Your task to perform on an android device: Open calendar and show me the second week of next month Image 0: 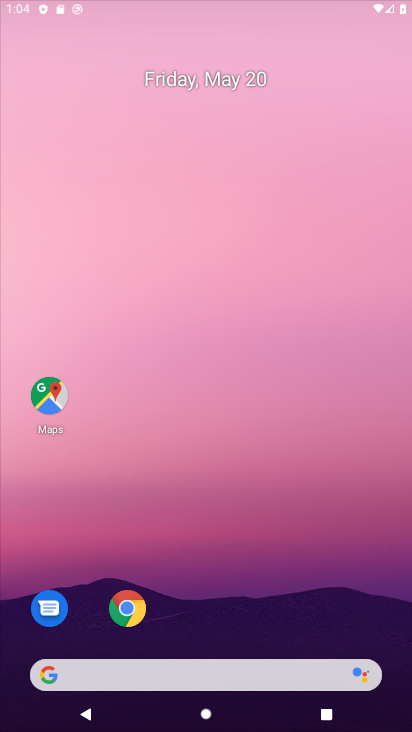
Step 0: drag from (254, 611) to (307, 95)
Your task to perform on an android device: Open calendar and show me the second week of next month Image 1: 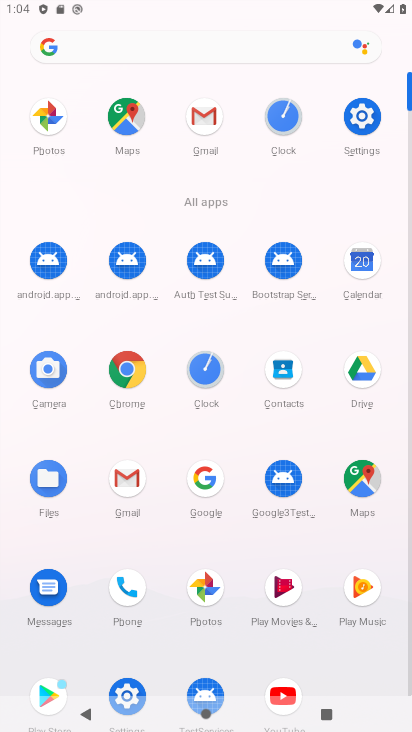
Step 1: click (361, 271)
Your task to perform on an android device: Open calendar and show me the second week of next month Image 2: 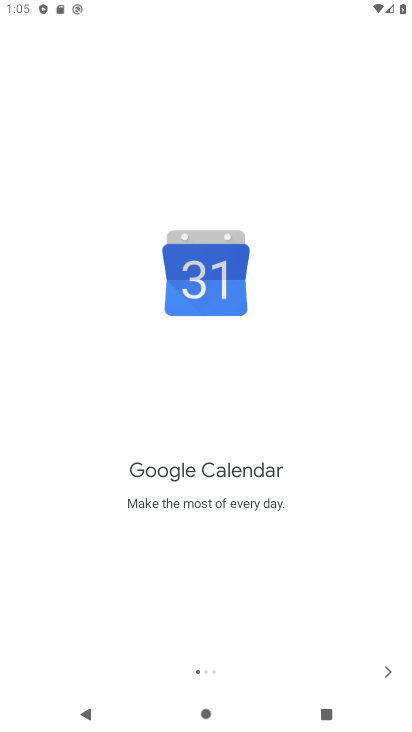
Step 2: click (383, 677)
Your task to perform on an android device: Open calendar and show me the second week of next month Image 3: 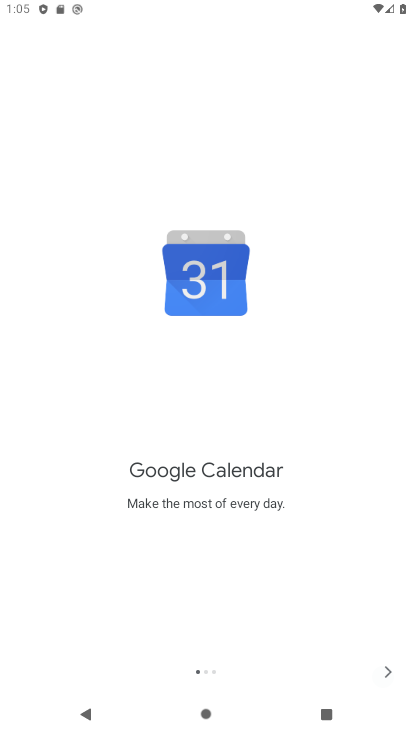
Step 3: click (383, 677)
Your task to perform on an android device: Open calendar and show me the second week of next month Image 4: 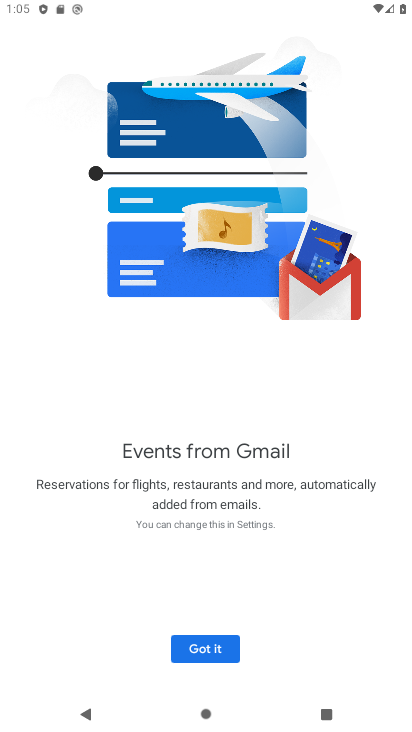
Step 4: click (383, 677)
Your task to perform on an android device: Open calendar and show me the second week of next month Image 5: 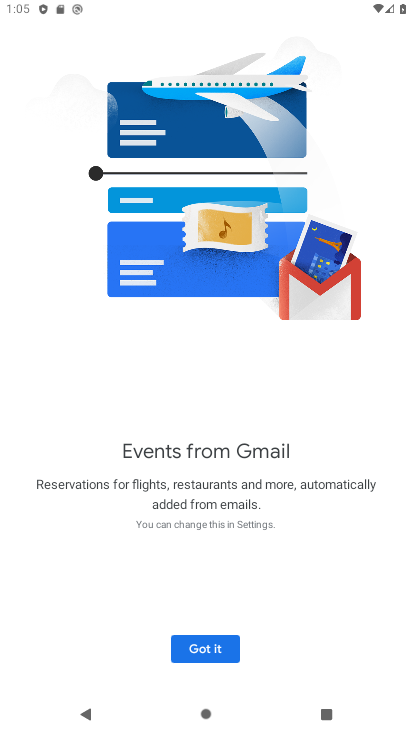
Step 5: click (211, 645)
Your task to perform on an android device: Open calendar and show me the second week of next month Image 6: 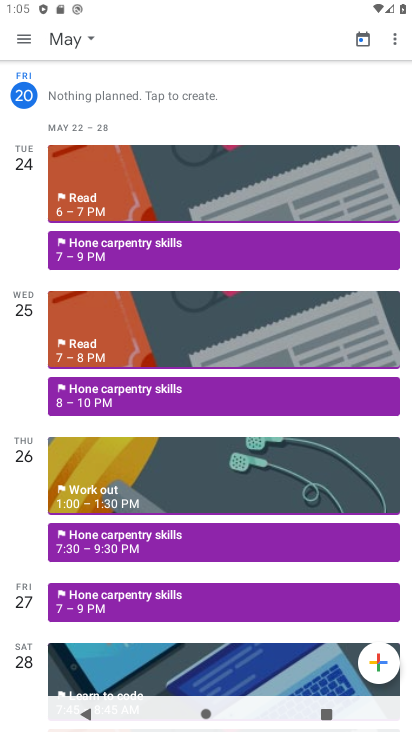
Step 6: click (85, 36)
Your task to perform on an android device: Open calendar and show me the second week of next month Image 7: 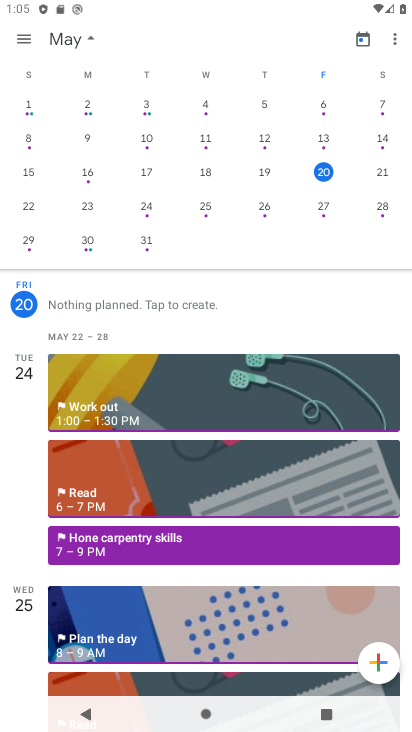
Step 7: drag from (373, 171) to (6, 146)
Your task to perform on an android device: Open calendar and show me the second week of next month Image 8: 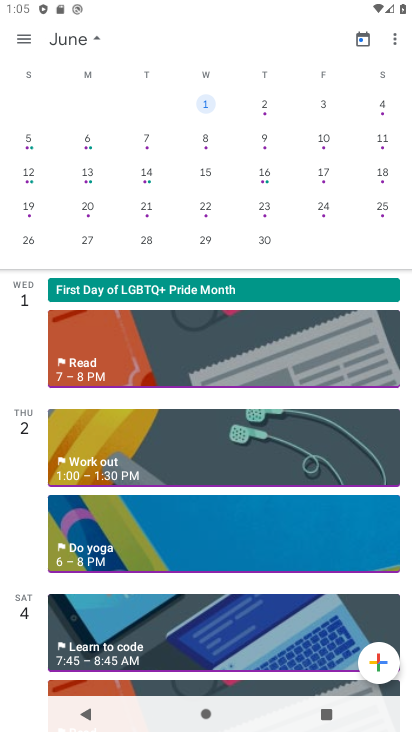
Step 8: click (79, 134)
Your task to perform on an android device: Open calendar and show me the second week of next month Image 9: 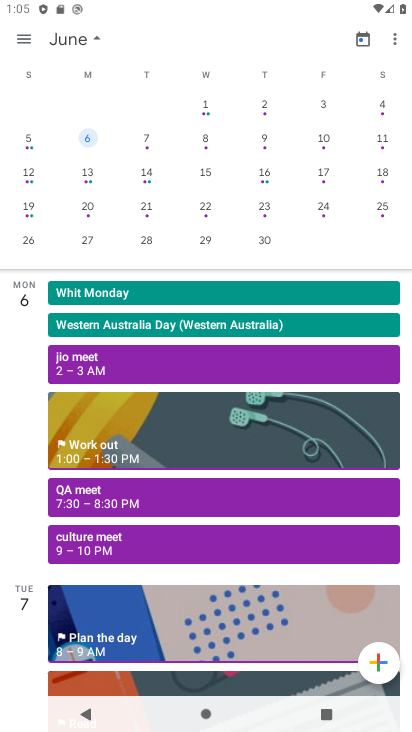
Step 9: task complete